Your task to perform on an android device: Open battery settings Image 0: 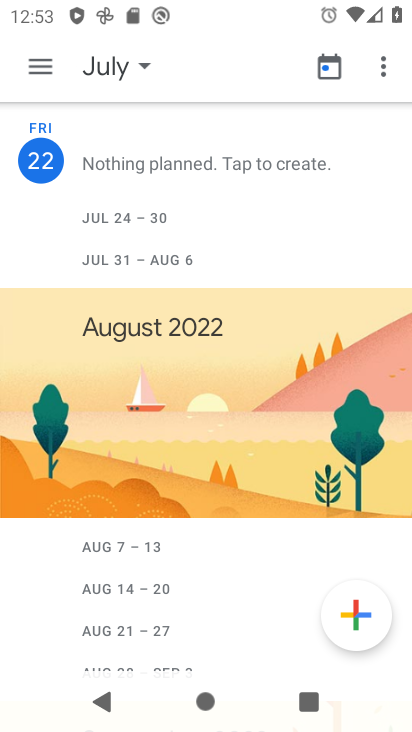
Step 0: press home button
Your task to perform on an android device: Open battery settings Image 1: 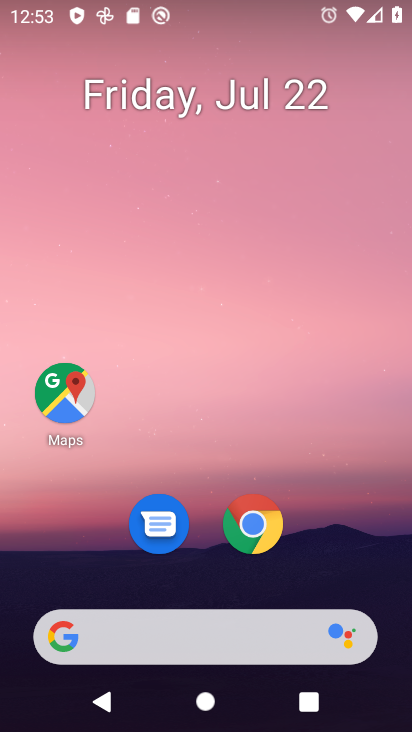
Step 1: drag from (185, 617) to (229, 234)
Your task to perform on an android device: Open battery settings Image 2: 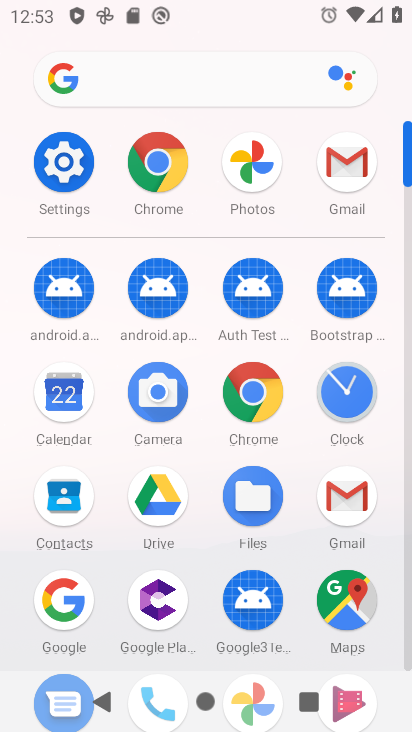
Step 2: click (68, 159)
Your task to perform on an android device: Open battery settings Image 3: 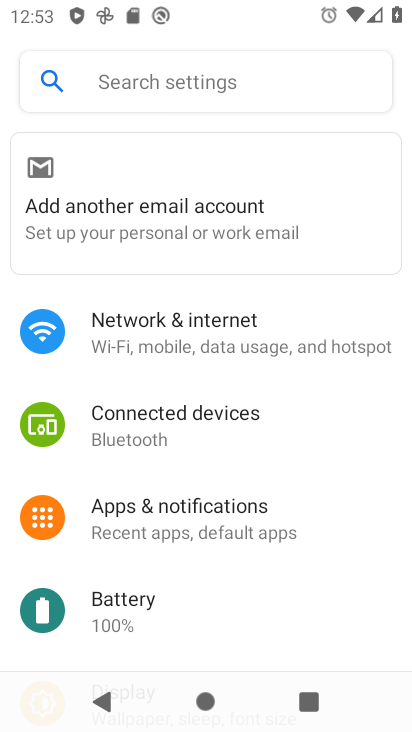
Step 3: click (131, 603)
Your task to perform on an android device: Open battery settings Image 4: 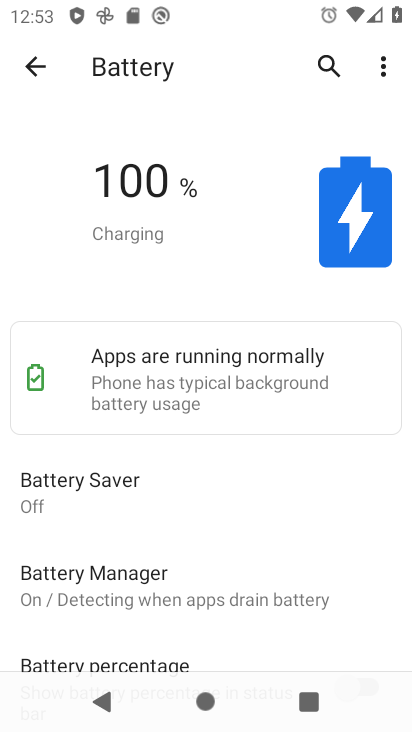
Step 4: task complete